Your task to perform on an android device: set the timer Image 0: 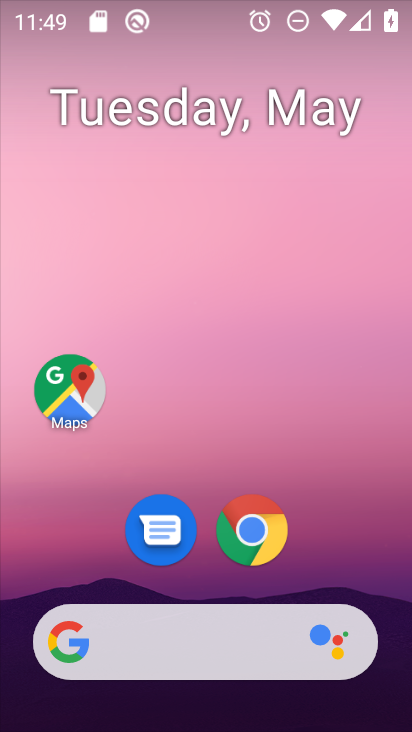
Step 0: drag from (350, 513) to (289, 69)
Your task to perform on an android device: set the timer Image 1: 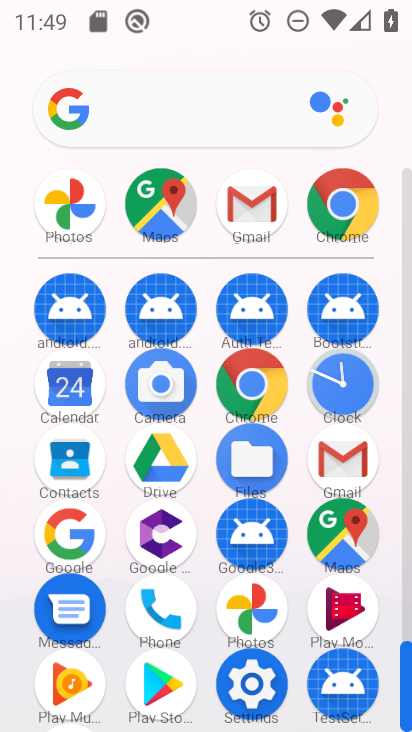
Step 1: click (350, 376)
Your task to perform on an android device: set the timer Image 2: 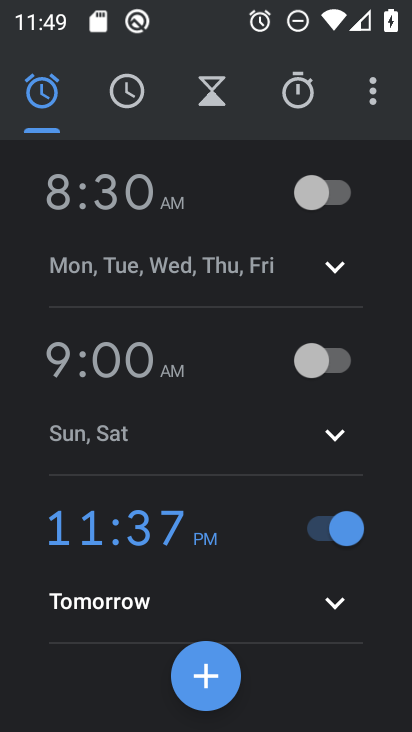
Step 2: click (214, 88)
Your task to perform on an android device: set the timer Image 3: 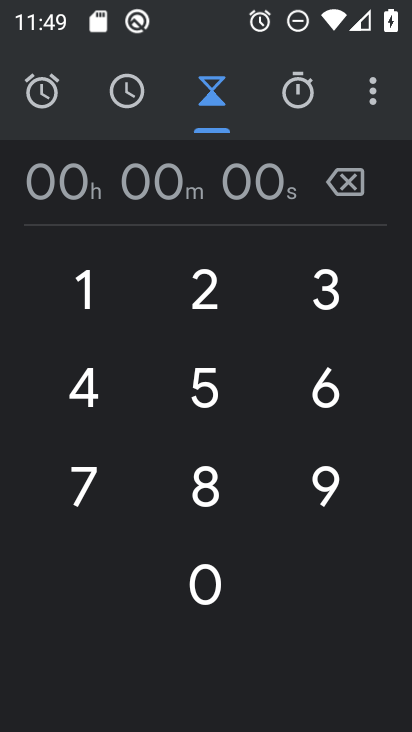
Step 3: click (197, 405)
Your task to perform on an android device: set the timer Image 4: 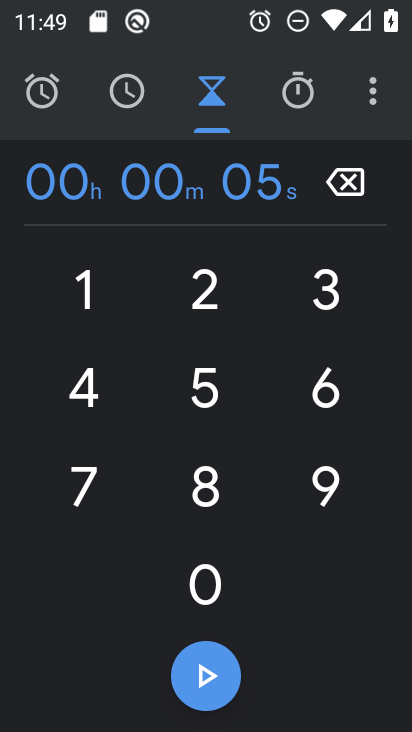
Step 4: task complete